Your task to perform on an android device: Show me recent news Image 0: 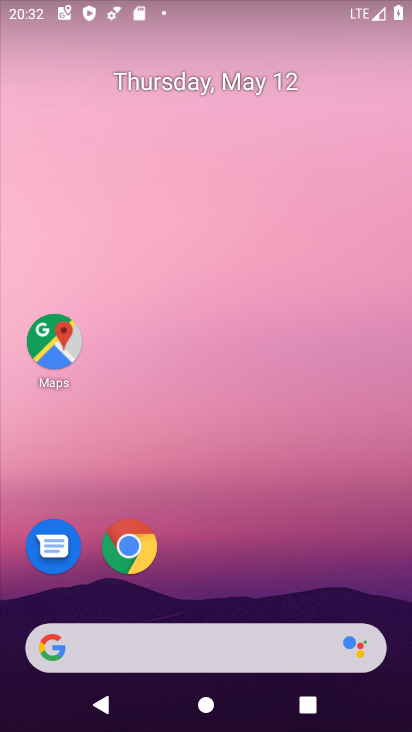
Step 0: drag from (202, 596) to (288, 12)
Your task to perform on an android device: Show me recent news Image 1: 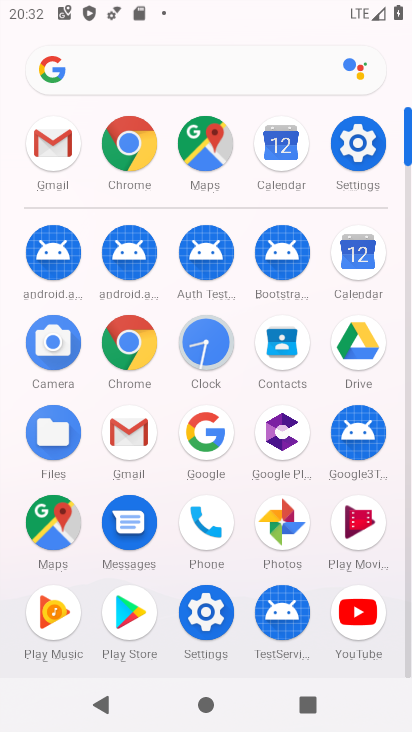
Step 1: click (183, 70)
Your task to perform on an android device: Show me recent news Image 2: 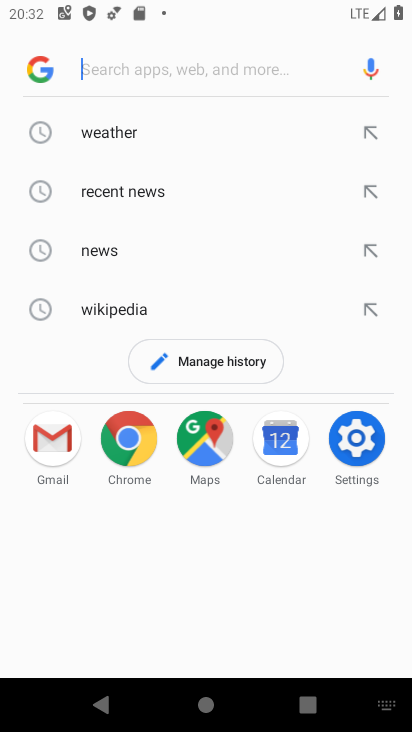
Step 2: click (113, 185)
Your task to perform on an android device: Show me recent news Image 3: 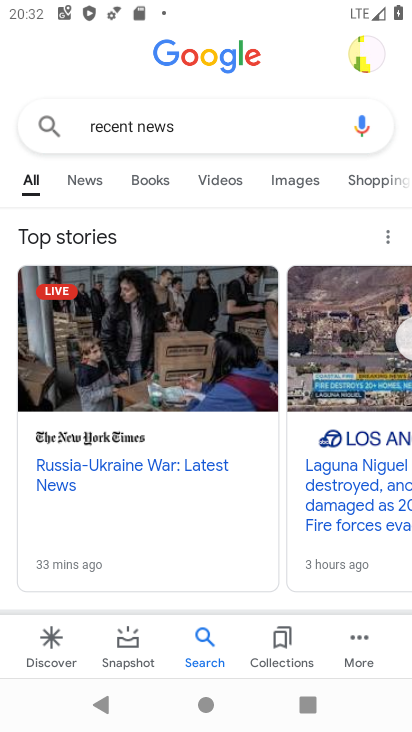
Step 3: task complete